Your task to perform on an android device: toggle notification dots Image 0: 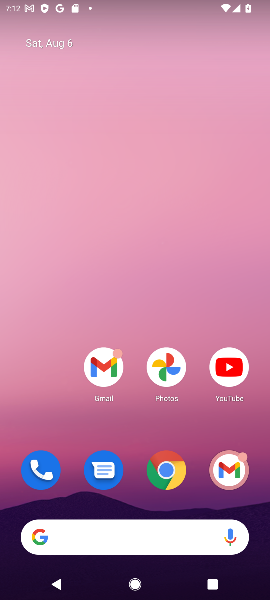
Step 0: drag from (95, 497) to (181, 5)
Your task to perform on an android device: toggle notification dots Image 1: 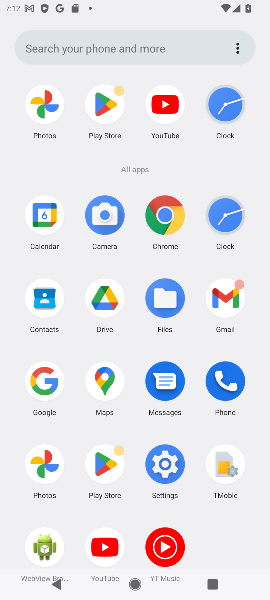
Step 1: click (168, 464)
Your task to perform on an android device: toggle notification dots Image 2: 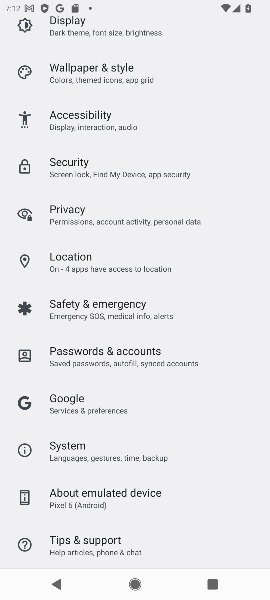
Step 2: drag from (144, 245) to (104, 535)
Your task to perform on an android device: toggle notification dots Image 3: 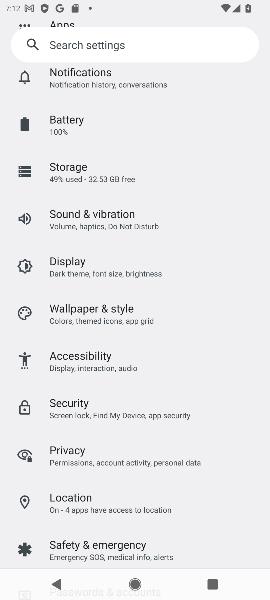
Step 3: drag from (139, 313) to (133, 477)
Your task to perform on an android device: toggle notification dots Image 4: 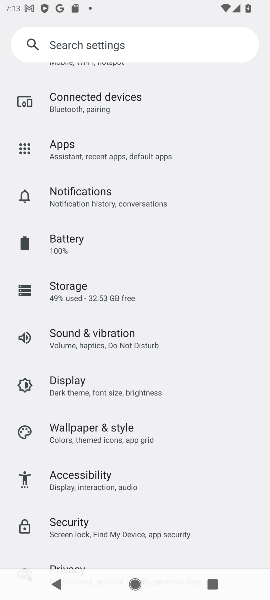
Step 4: drag from (143, 262) to (95, 488)
Your task to perform on an android device: toggle notification dots Image 5: 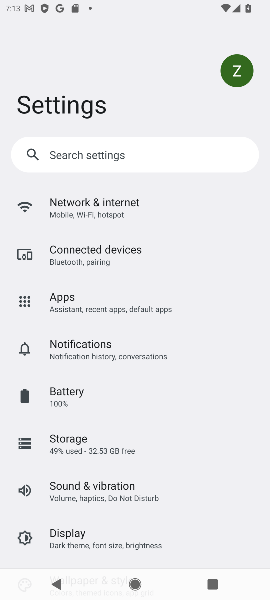
Step 5: click (122, 357)
Your task to perform on an android device: toggle notification dots Image 6: 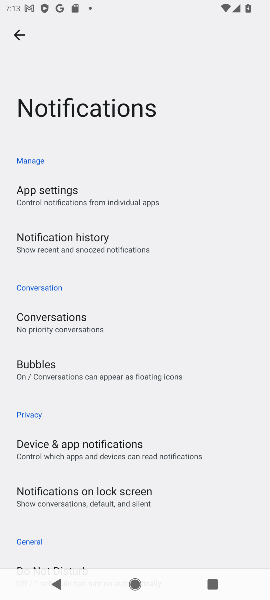
Step 6: drag from (133, 469) to (151, 237)
Your task to perform on an android device: toggle notification dots Image 7: 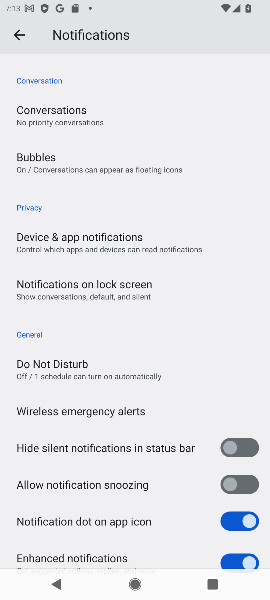
Step 7: drag from (124, 484) to (116, 239)
Your task to perform on an android device: toggle notification dots Image 8: 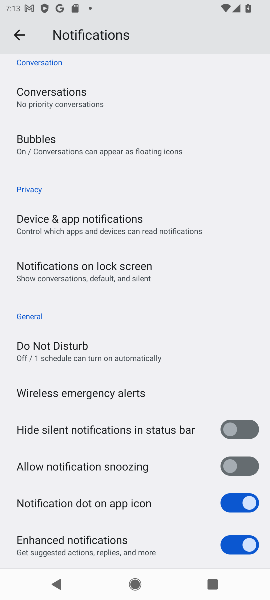
Step 8: click (188, 496)
Your task to perform on an android device: toggle notification dots Image 9: 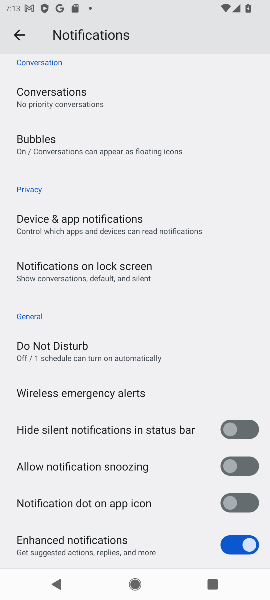
Step 9: task complete